Your task to perform on an android device: Go to Maps Image 0: 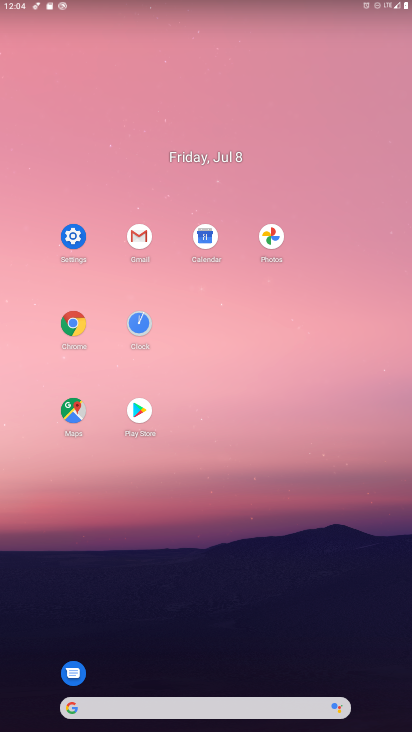
Step 0: click (68, 413)
Your task to perform on an android device: Go to Maps Image 1: 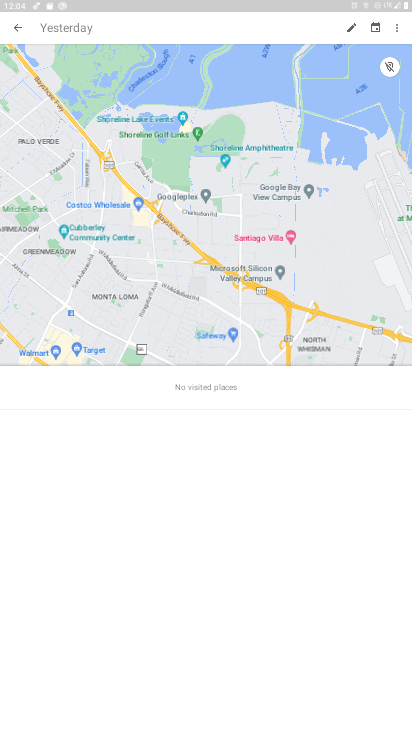
Step 1: task complete